Your task to perform on an android device: read, delete, or share a saved page in the chrome app Image 0: 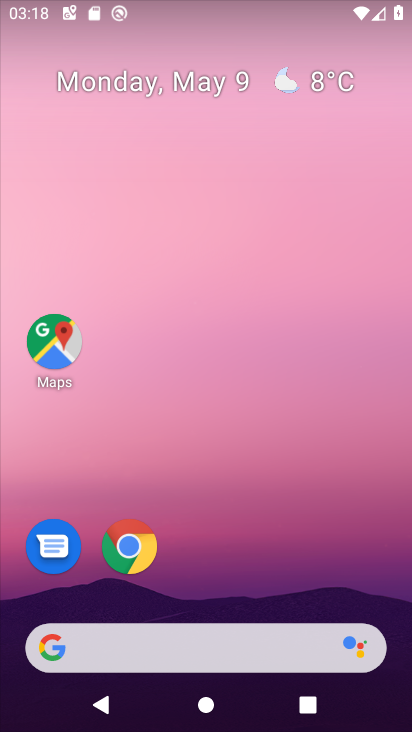
Step 0: click (142, 544)
Your task to perform on an android device: read, delete, or share a saved page in the chrome app Image 1: 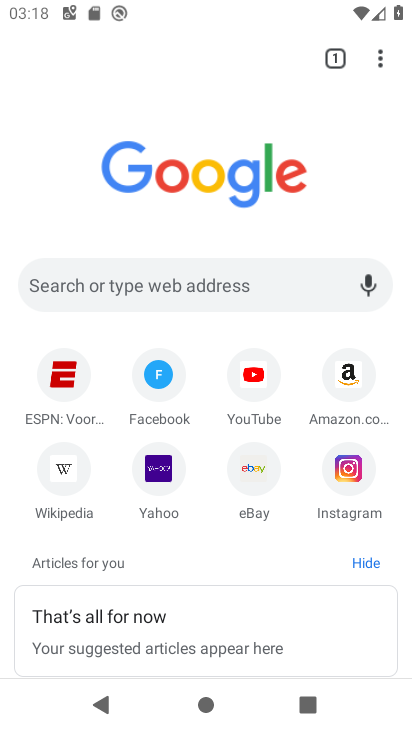
Step 1: click (377, 59)
Your task to perform on an android device: read, delete, or share a saved page in the chrome app Image 2: 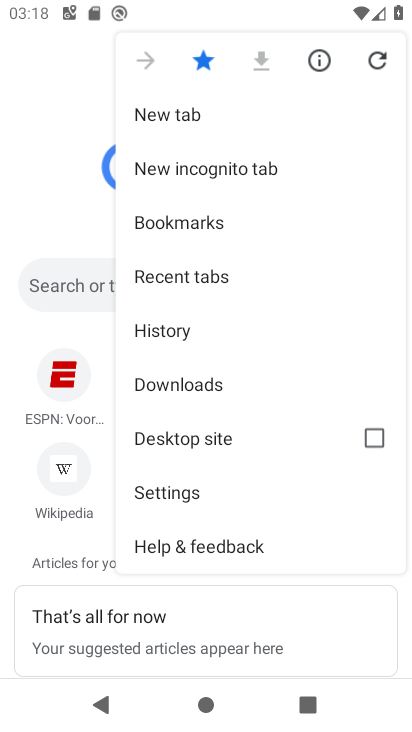
Step 2: click (204, 377)
Your task to perform on an android device: read, delete, or share a saved page in the chrome app Image 3: 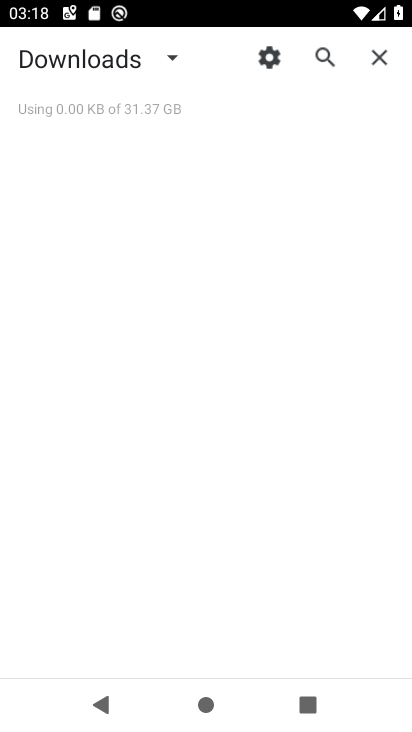
Step 3: task complete